Your task to perform on an android device: Check the weather Image 0: 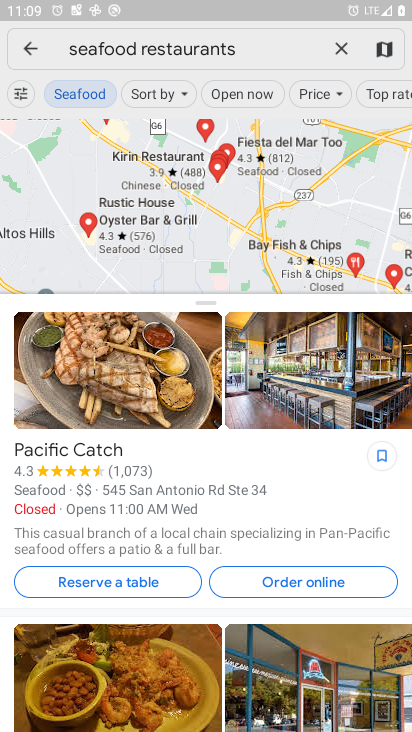
Step 0: press home button
Your task to perform on an android device: Check the weather Image 1: 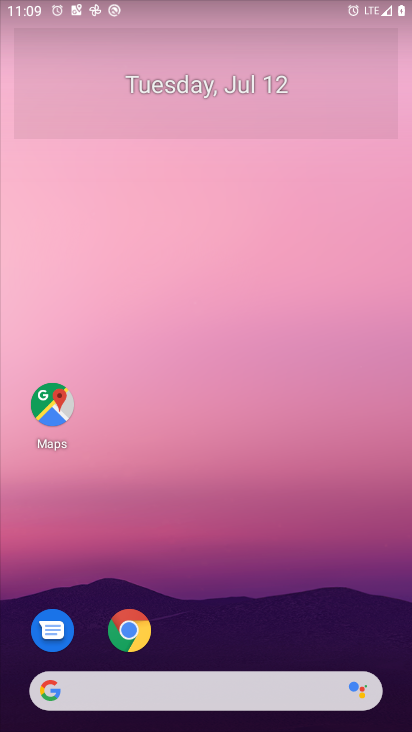
Step 1: drag from (252, 642) to (245, 165)
Your task to perform on an android device: Check the weather Image 2: 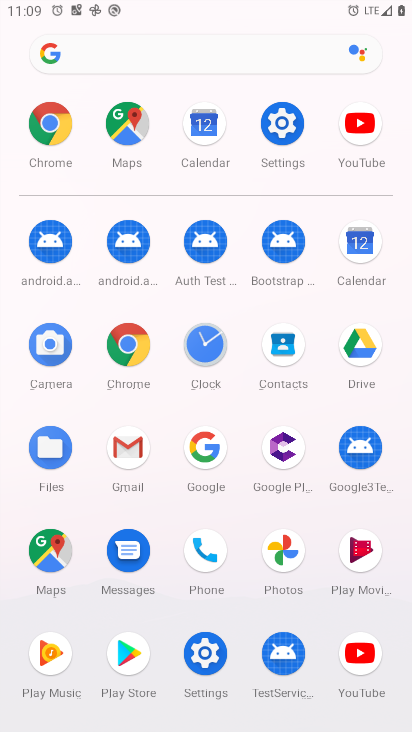
Step 2: click (209, 444)
Your task to perform on an android device: Check the weather Image 3: 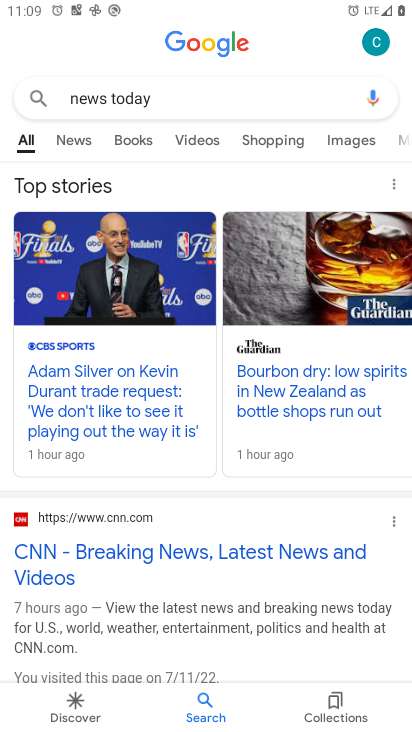
Step 3: click (246, 100)
Your task to perform on an android device: Check the weather Image 4: 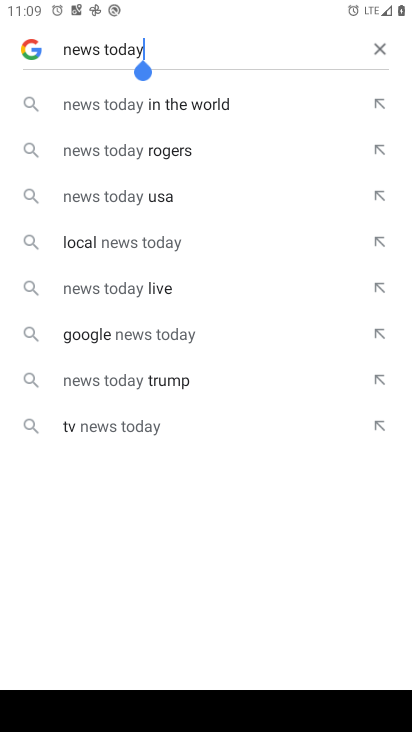
Step 4: click (374, 47)
Your task to perform on an android device: Check the weather Image 5: 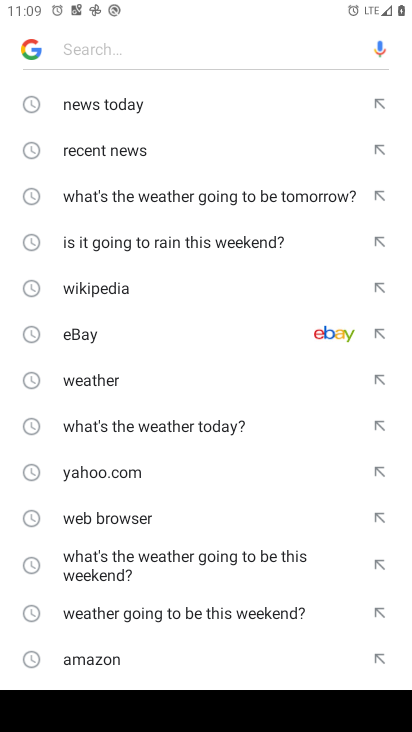
Step 5: type "weather"
Your task to perform on an android device: Check the weather Image 6: 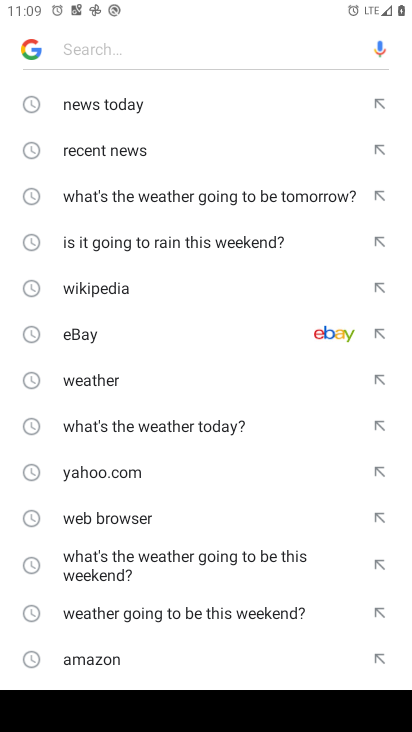
Step 6: click (108, 39)
Your task to perform on an android device: Check the weather Image 7: 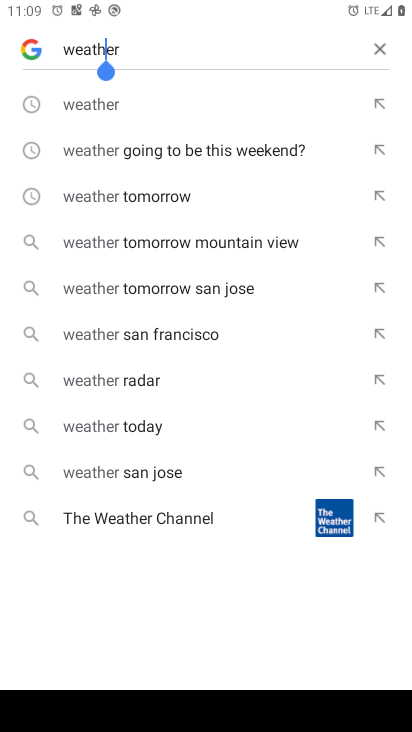
Step 7: press enter
Your task to perform on an android device: Check the weather Image 8: 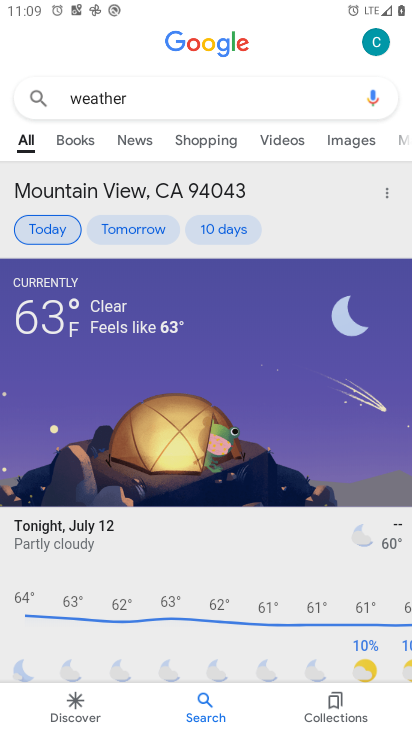
Step 8: task complete